Your task to perform on an android device: Search for flights from Seoul to Barcelona Image 0: 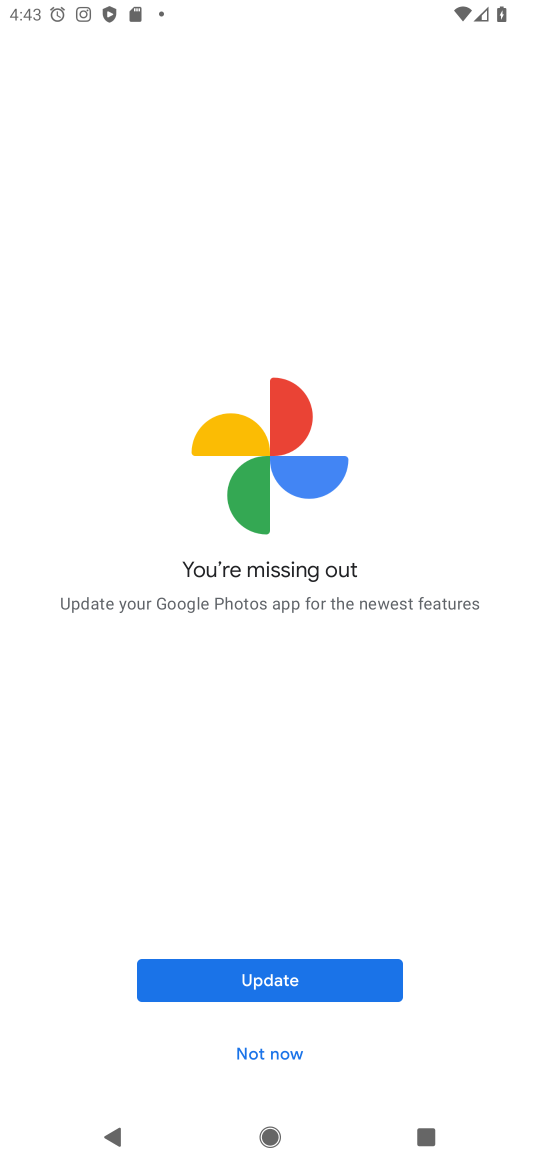
Step 0: press home button
Your task to perform on an android device: Search for flights from Seoul to Barcelona Image 1: 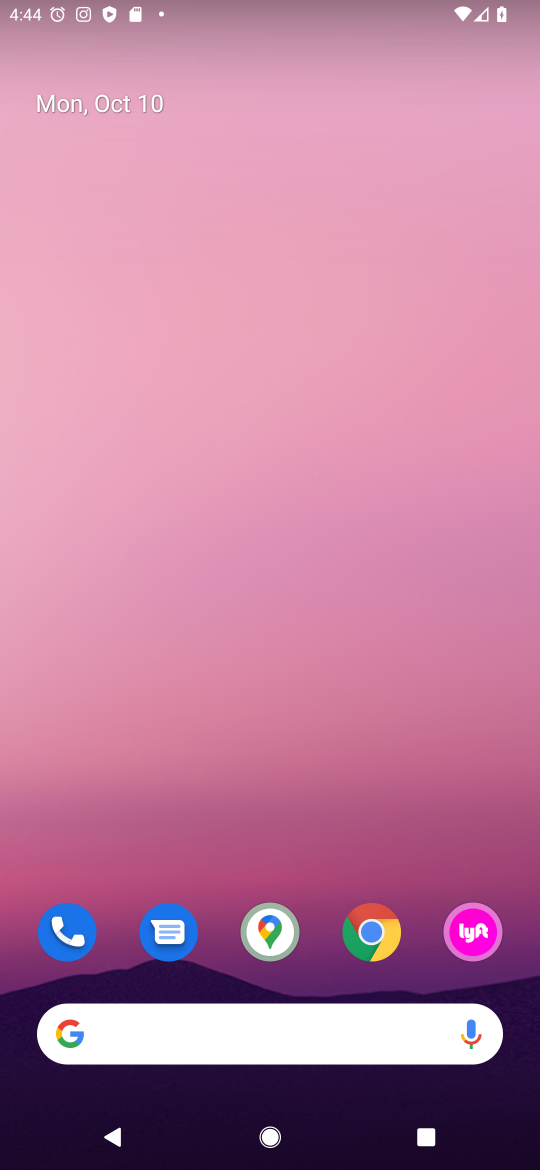
Step 1: click (292, 1034)
Your task to perform on an android device: Search for flights from Seoul to Barcelona Image 2: 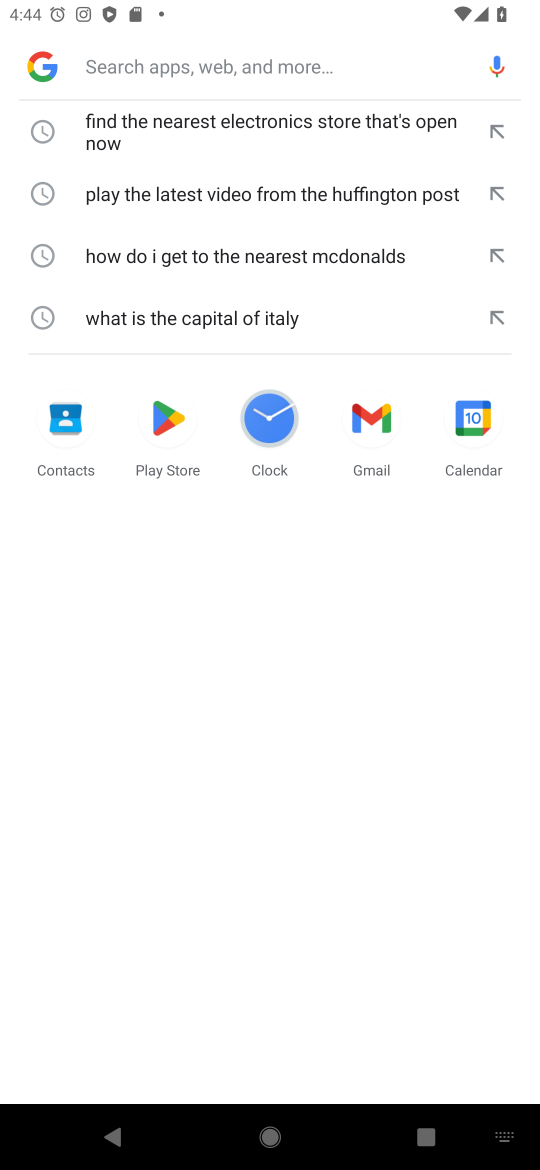
Step 2: type " flights from Seoul to Barcelona"
Your task to perform on an android device: Search for flights from Seoul to Barcelona Image 3: 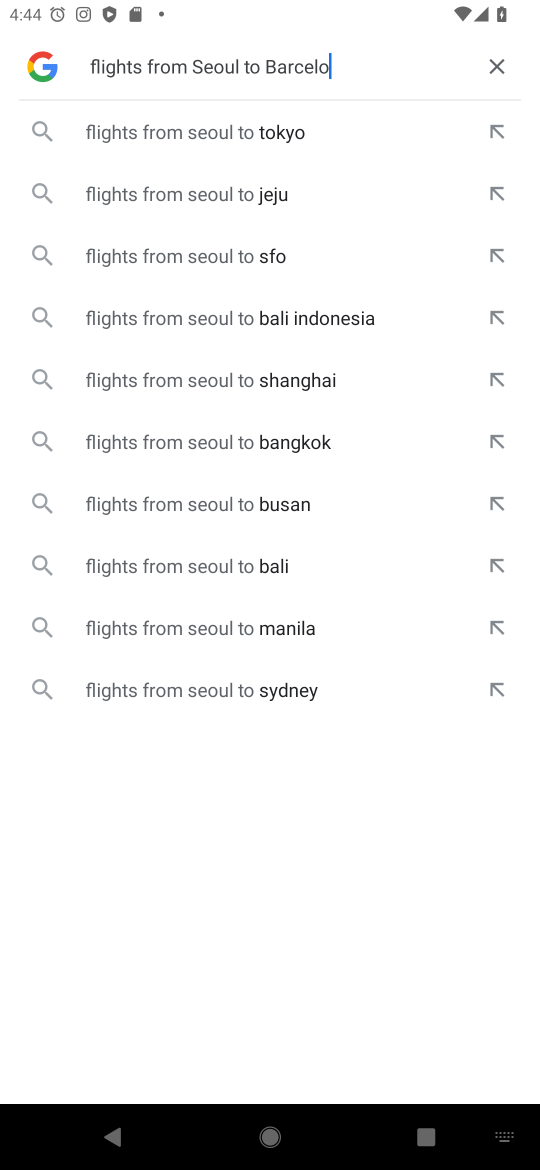
Step 3: press enter
Your task to perform on an android device: Search for flights from Seoul to Barcelona Image 4: 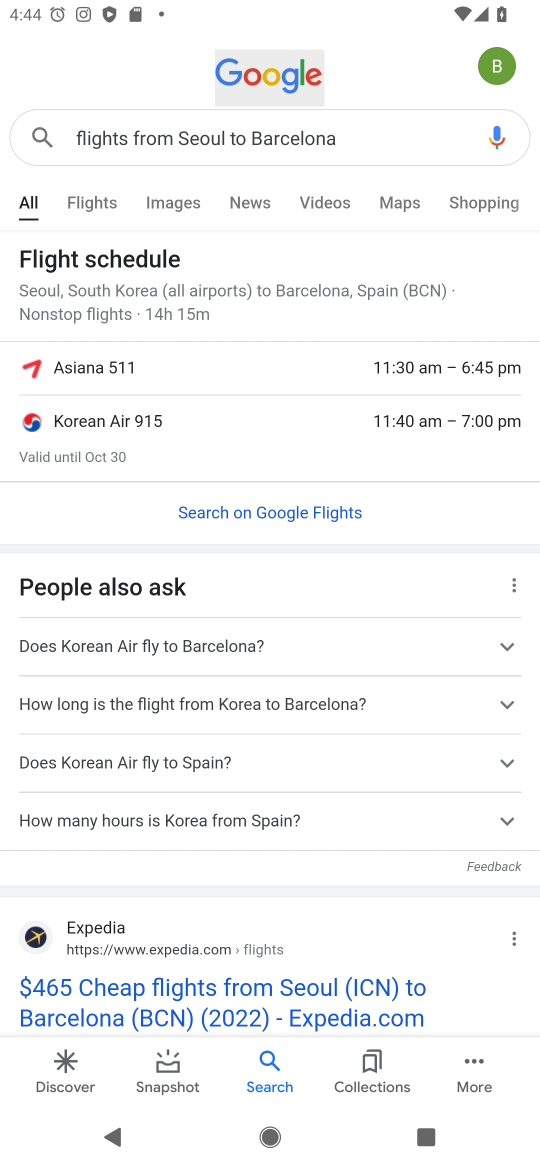
Step 4: drag from (302, 870) to (316, 364)
Your task to perform on an android device: Search for flights from Seoul to Barcelona Image 5: 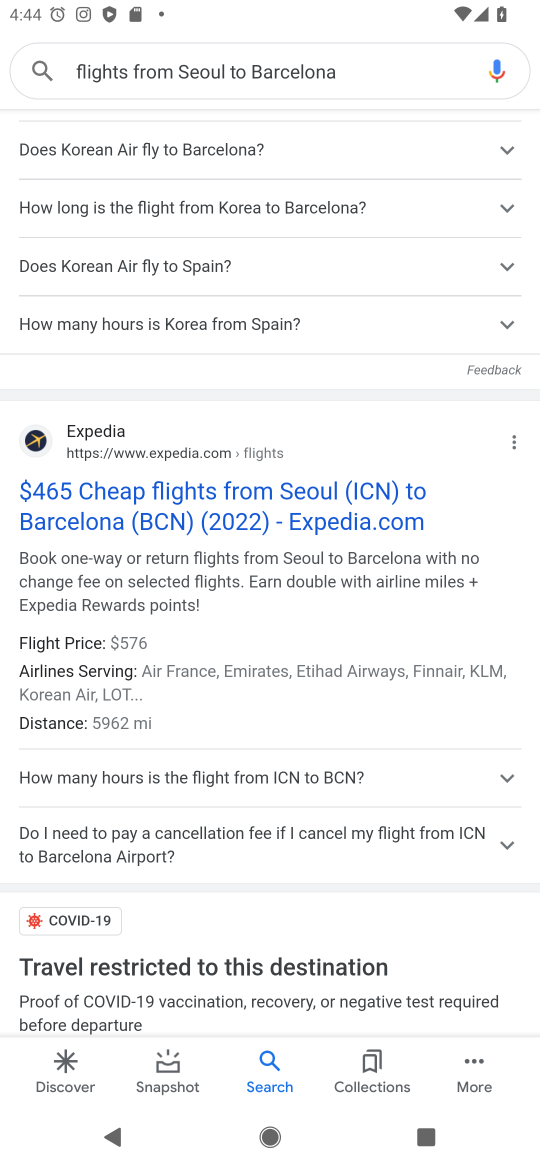
Step 5: drag from (275, 891) to (282, 404)
Your task to perform on an android device: Search for flights from Seoul to Barcelona Image 6: 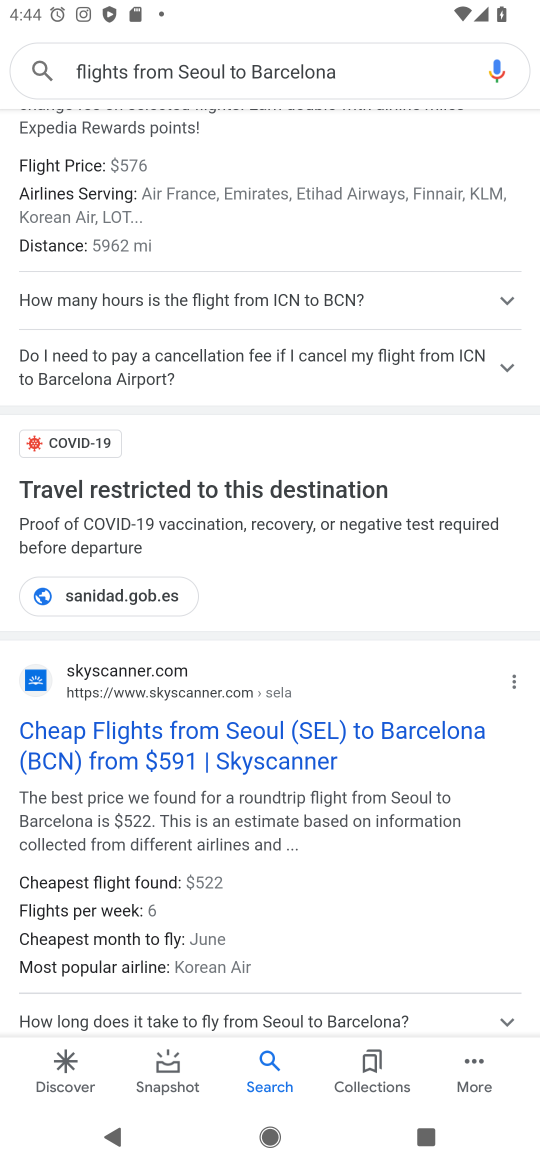
Step 6: drag from (321, 211) to (300, 804)
Your task to perform on an android device: Search for flights from Seoul to Barcelona Image 7: 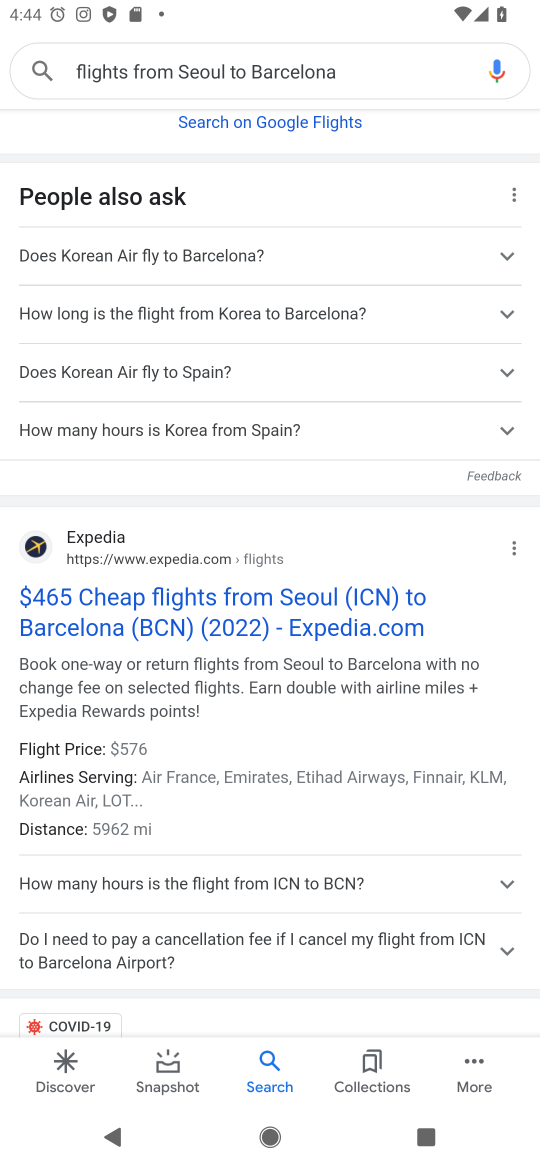
Step 7: drag from (342, 185) to (289, 826)
Your task to perform on an android device: Search for flights from Seoul to Barcelona Image 8: 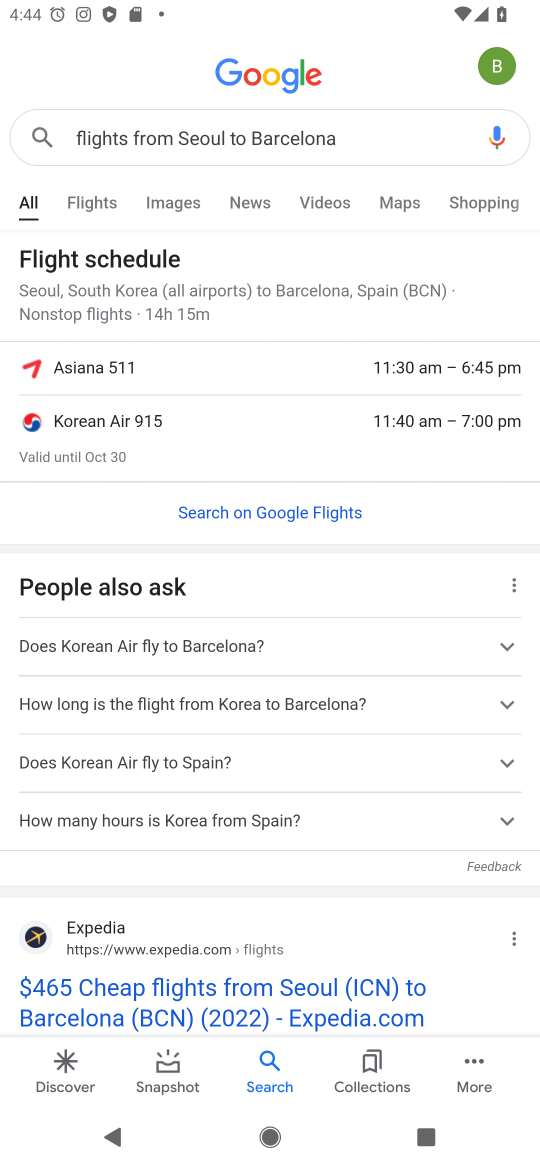
Step 8: click (297, 501)
Your task to perform on an android device: Search for flights from Seoul to Barcelona Image 9: 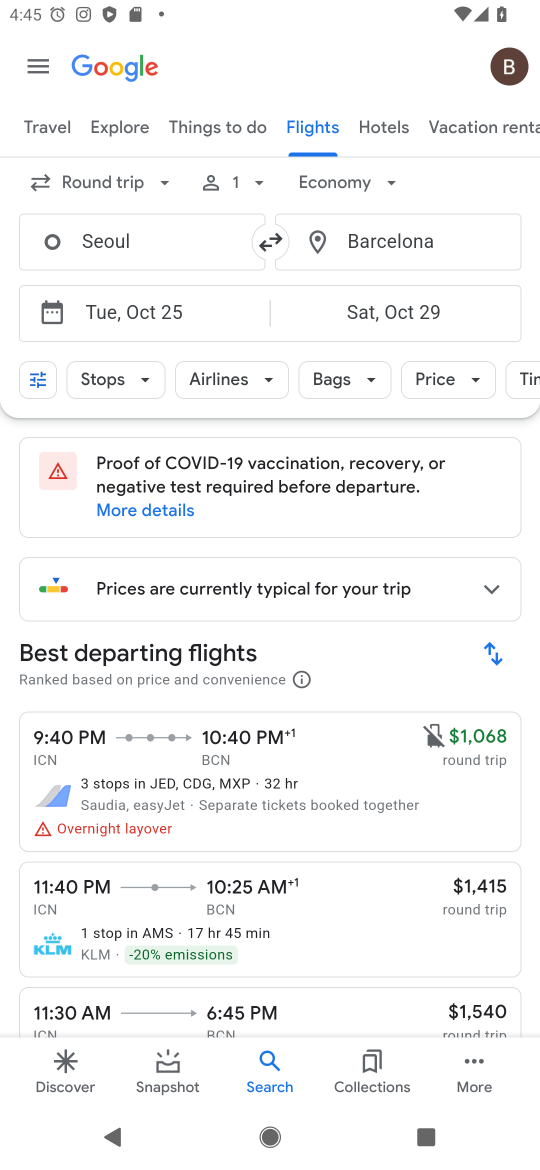
Step 9: task complete